Your task to perform on an android device: Set the phone to "Do not disturb". Image 0: 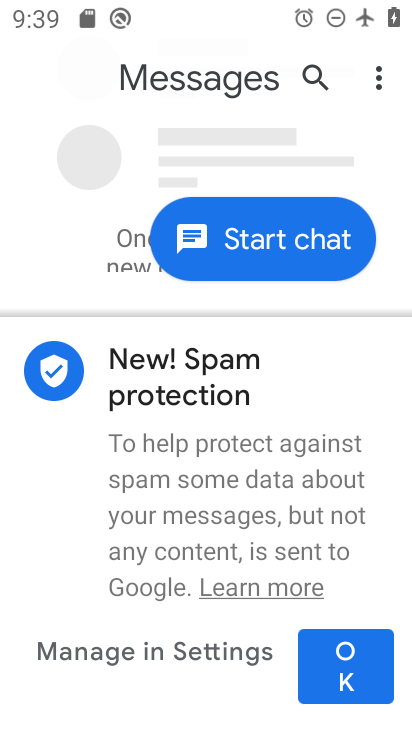
Step 0: press home button
Your task to perform on an android device: Set the phone to "Do not disturb". Image 1: 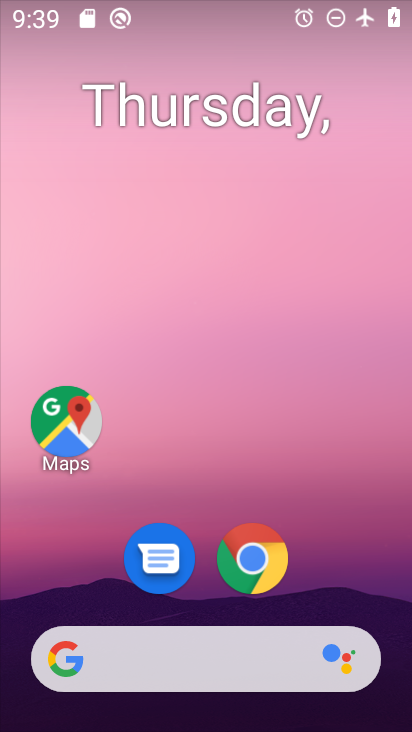
Step 1: drag from (383, 608) to (325, 245)
Your task to perform on an android device: Set the phone to "Do not disturb". Image 2: 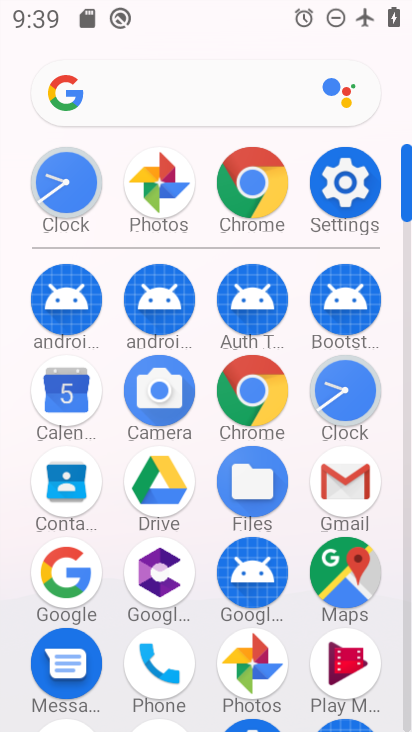
Step 2: click (406, 692)
Your task to perform on an android device: Set the phone to "Do not disturb". Image 3: 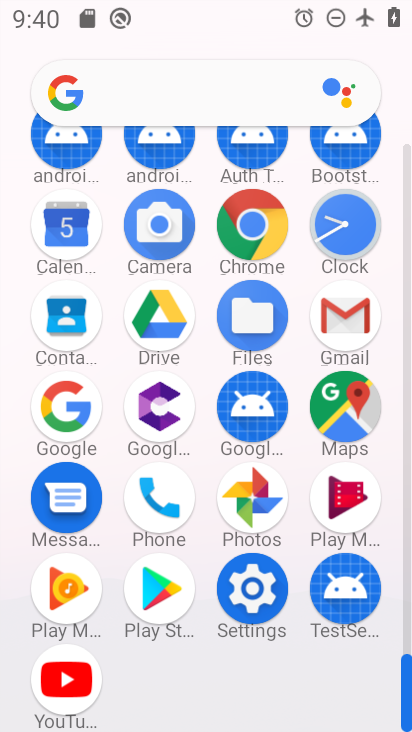
Step 3: click (250, 588)
Your task to perform on an android device: Set the phone to "Do not disturb". Image 4: 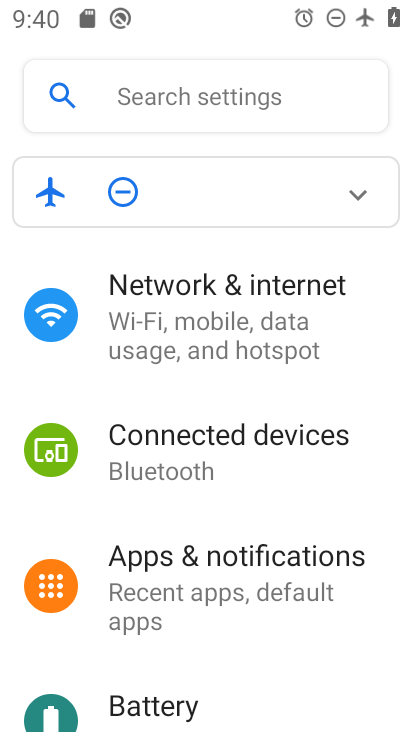
Step 4: drag from (357, 633) to (314, 185)
Your task to perform on an android device: Set the phone to "Do not disturb". Image 5: 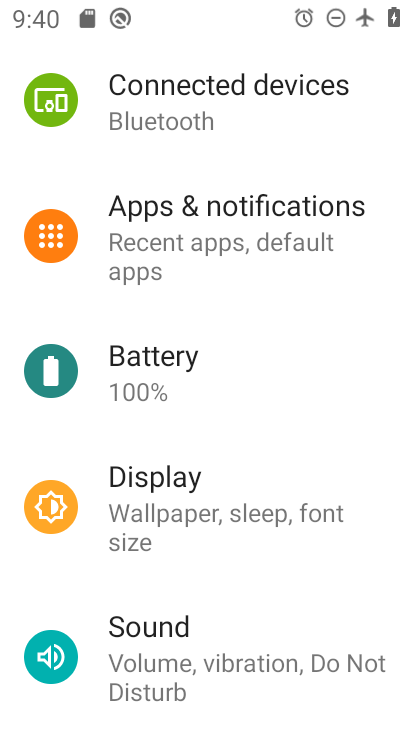
Step 5: click (179, 637)
Your task to perform on an android device: Set the phone to "Do not disturb". Image 6: 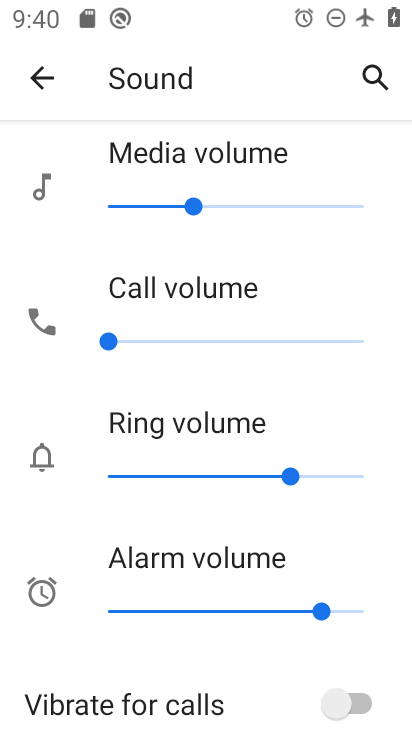
Step 6: drag from (249, 667) to (296, 220)
Your task to perform on an android device: Set the phone to "Do not disturb". Image 7: 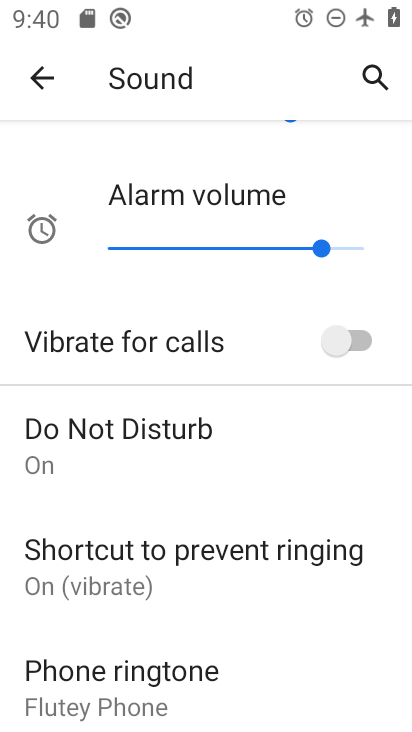
Step 7: click (39, 440)
Your task to perform on an android device: Set the phone to "Do not disturb". Image 8: 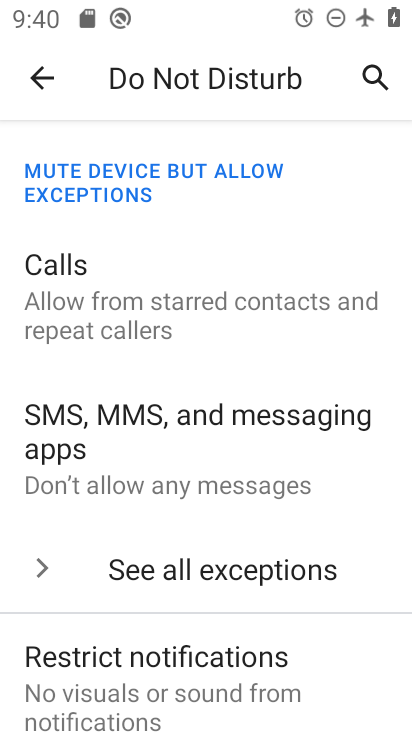
Step 8: task complete